Your task to perform on an android device: Open display settings Image 0: 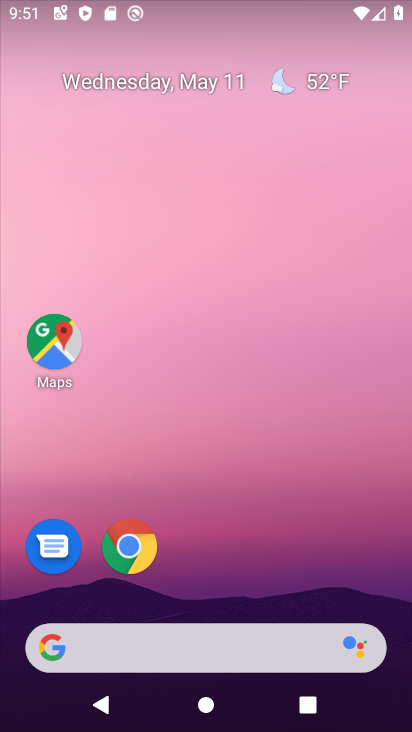
Step 0: drag from (209, 618) to (362, 155)
Your task to perform on an android device: Open display settings Image 1: 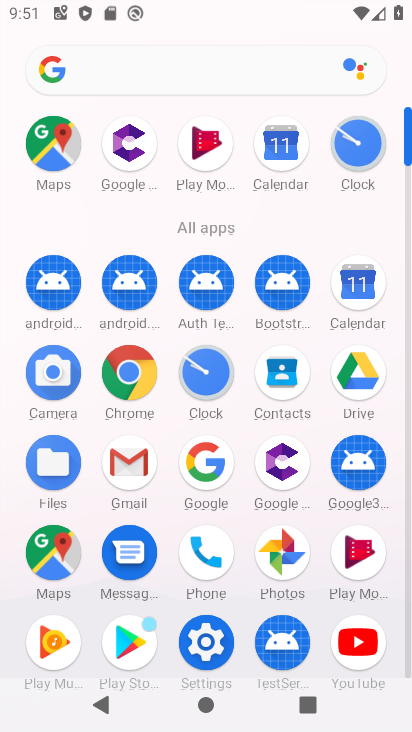
Step 1: click (215, 635)
Your task to perform on an android device: Open display settings Image 2: 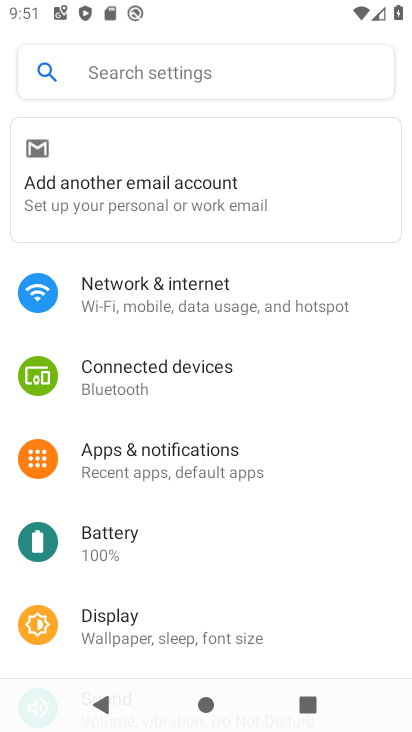
Step 2: click (152, 629)
Your task to perform on an android device: Open display settings Image 3: 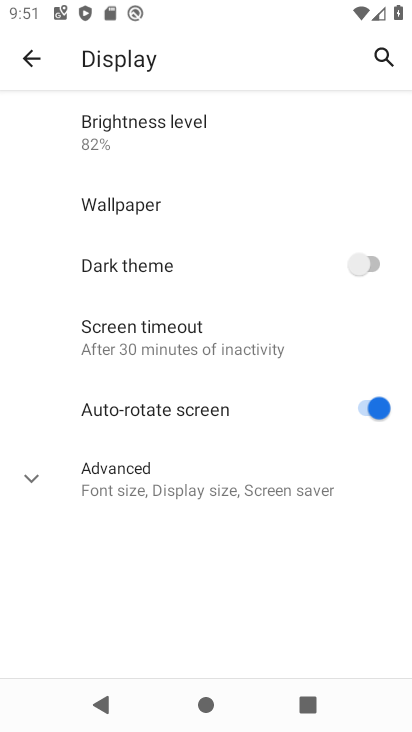
Step 3: task complete